Your task to perform on an android device: check android version Image 0: 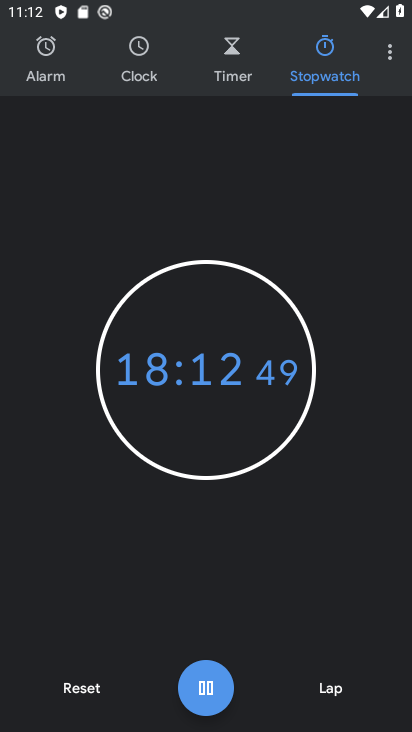
Step 0: press home button
Your task to perform on an android device: check android version Image 1: 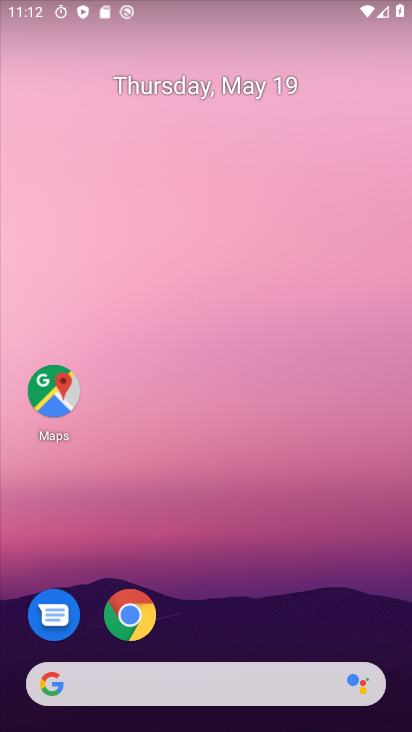
Step 1: drag from (328, 571) to (268, 9)
Your task to perform on an android device: check android version Image 2: 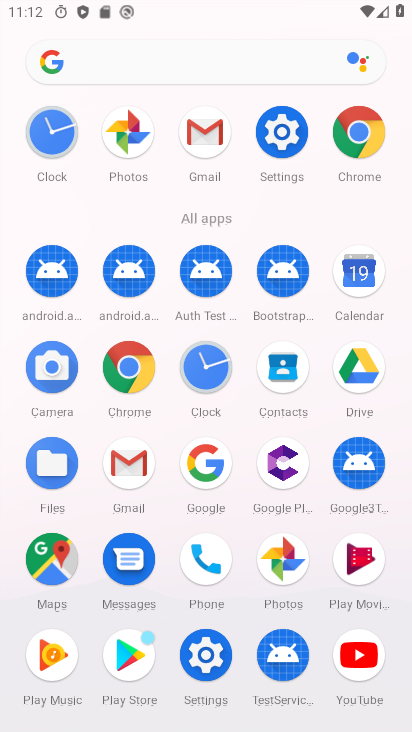
Step 2: click (281, 152)
Your task to perform on an android device: check android version Image 3: 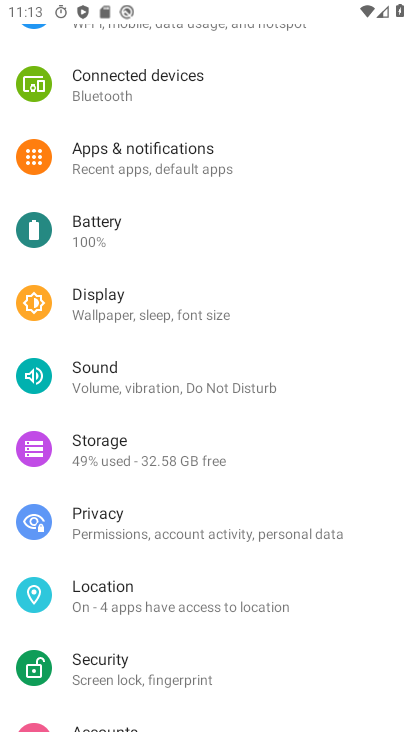
Step 3: drag from (318, 529) to (246, 158)
Your task to perform on an android device: check android version Image 4: 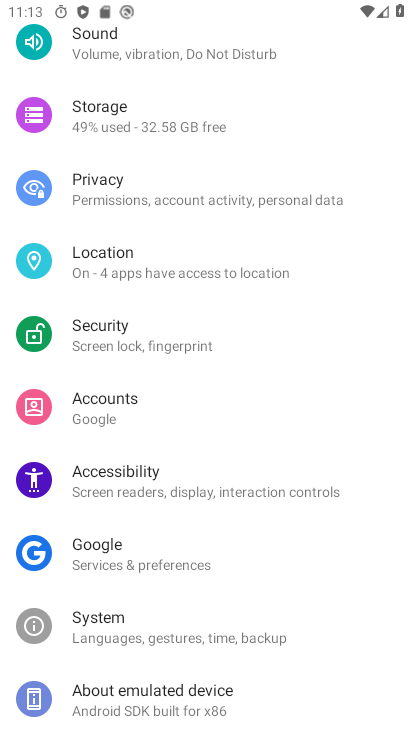
Step 4: click (215, 693)
Your task to perform on an android device: check android version Image 5: 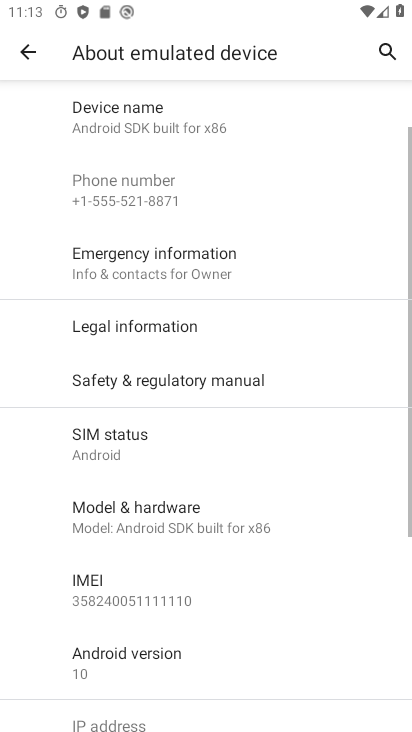
Step 5: drag from (219, 525) to (196, 426)
Your task to perform on an android device: check android version Image 6: 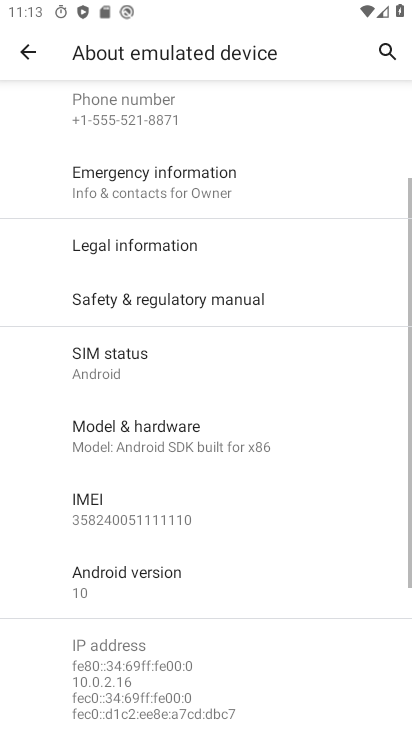
Step 6: click (127, 575)
Your task to perform on an android device: check android version Image 7: 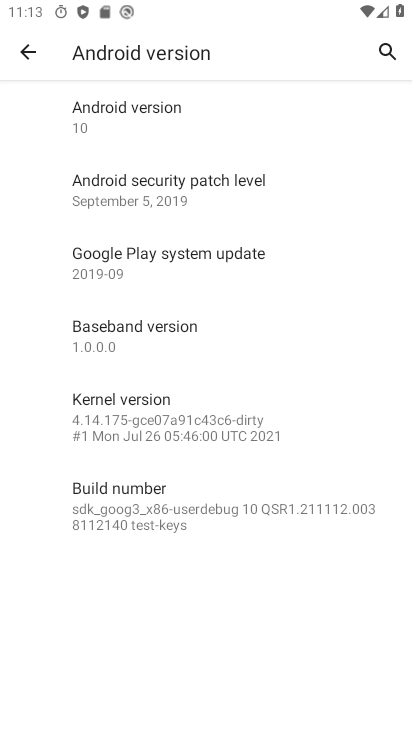
Step 7: task complete